Your task to perform on an android device: turn notification dots off Image 0: 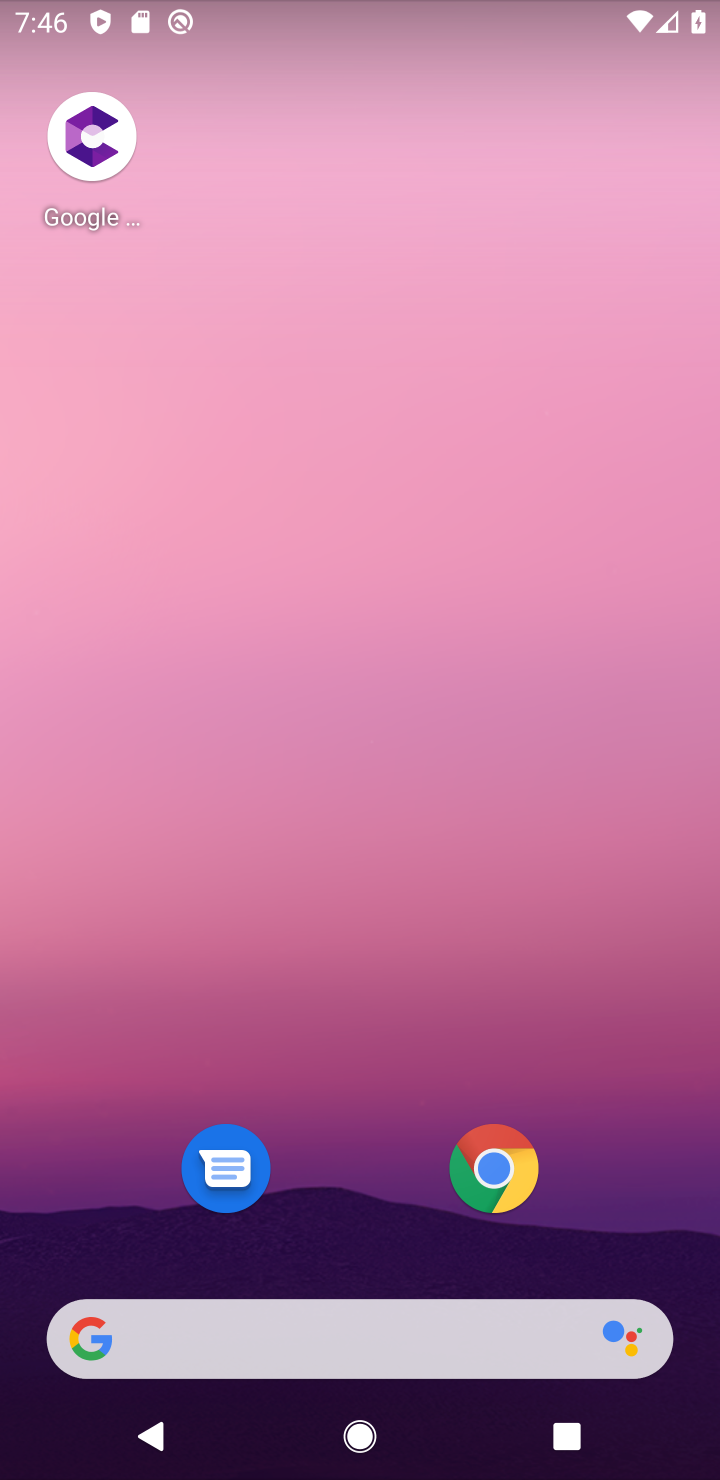
Step 0: drag from (624, 1254) to (680, 1)
Your task to perform on an android device: turn notification dots off Image 1: 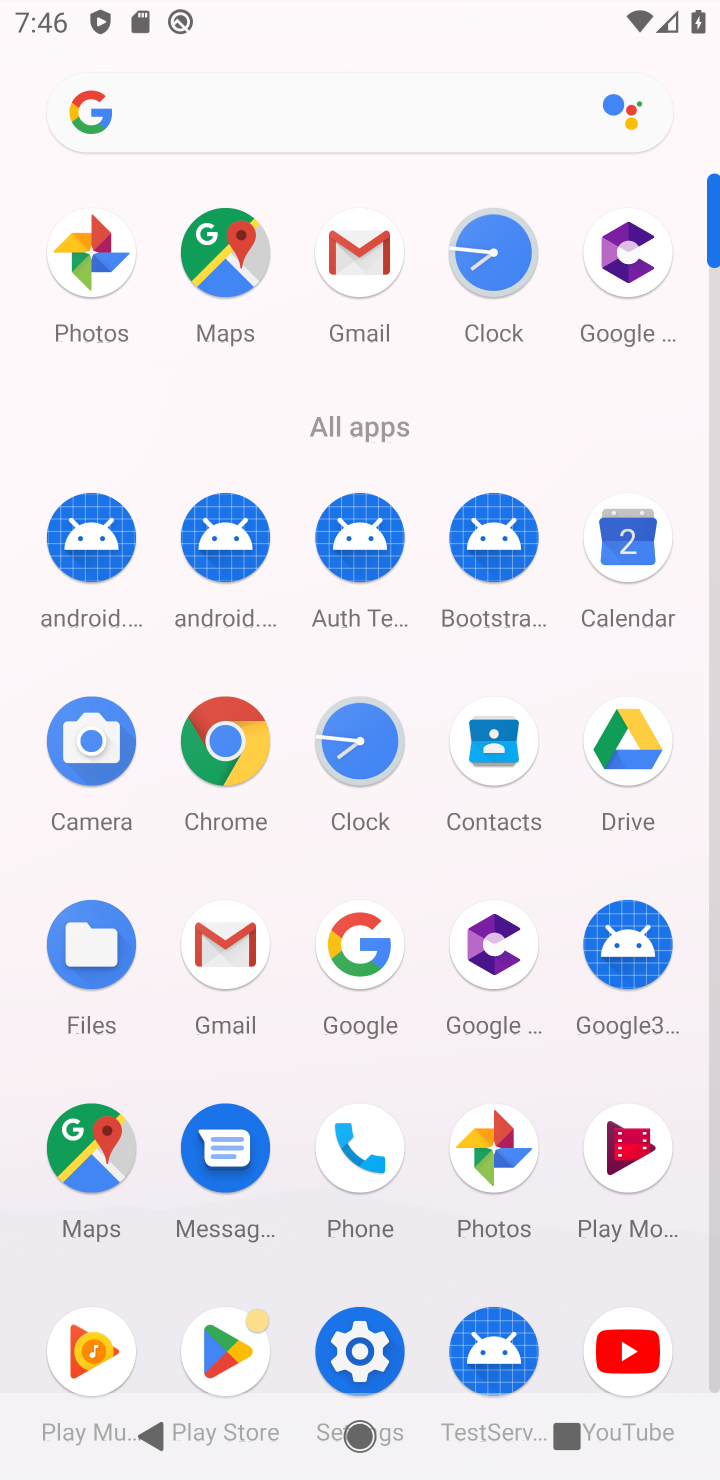
Step 1: click (332, 1355)
Your task to perform on an android device: turn notification dots off Image 2: 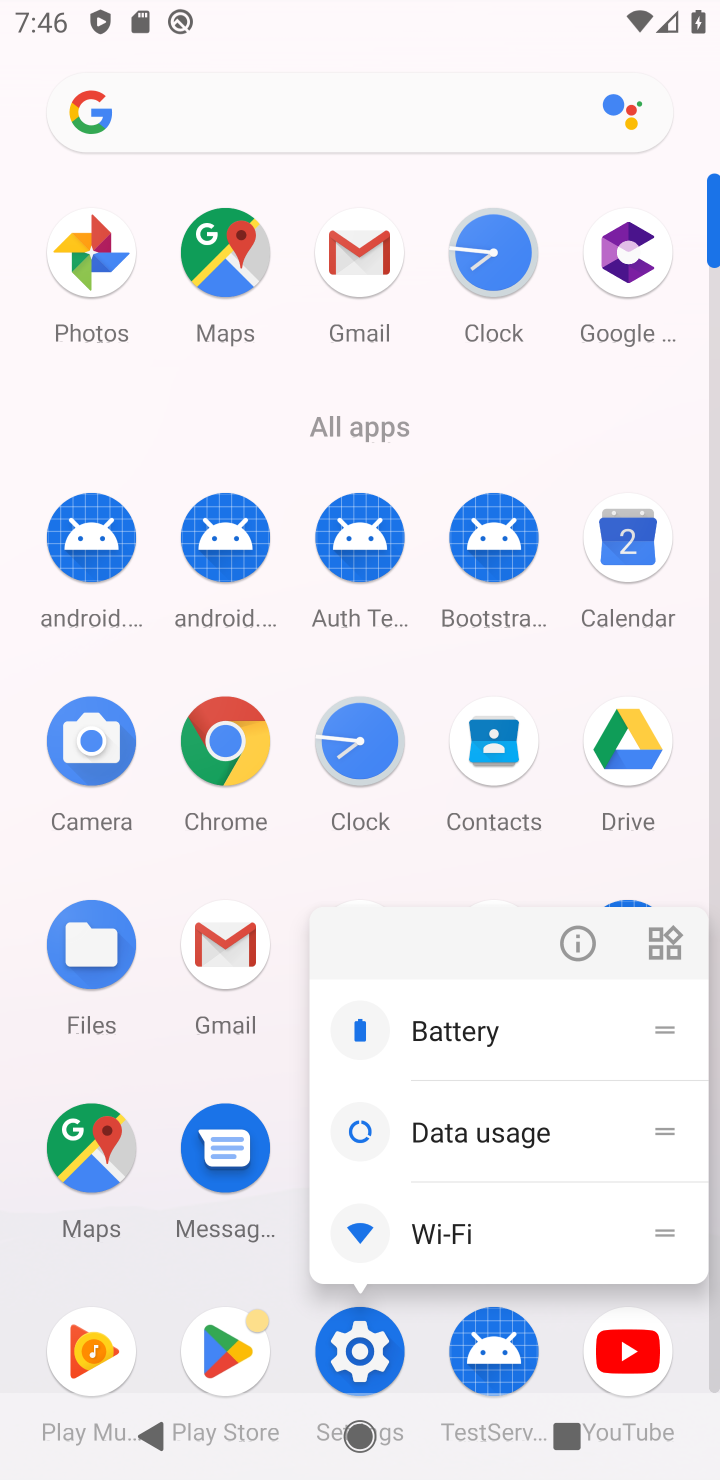
Step 2: click (355, 1335)
Your task to perform on an android device: turn notification dots off Image 3: 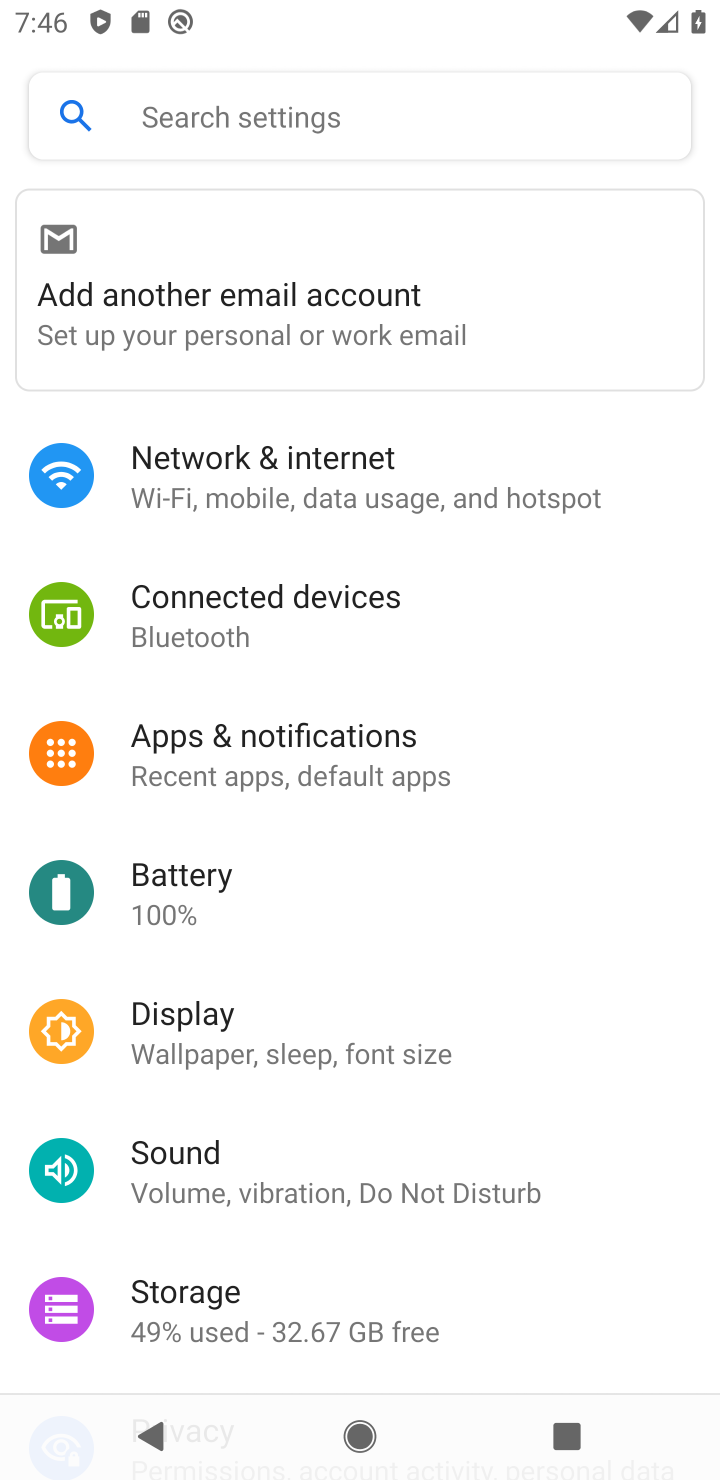
Step 3: click (258, 791)
Your task to perform on an android device: turn notification dots off Image 4: 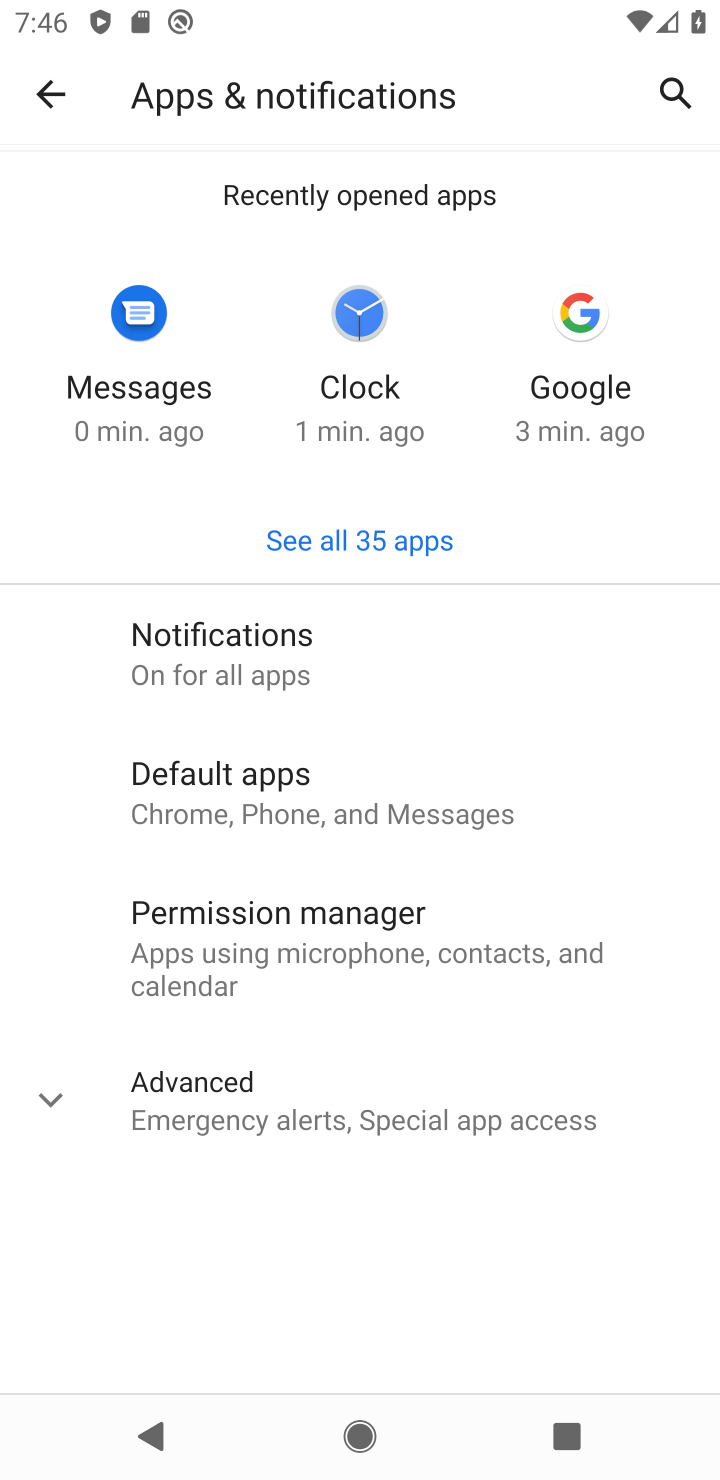
Step 4: click (193, 643)
Your task to perform on an android device: turn notification dots off Image 5: 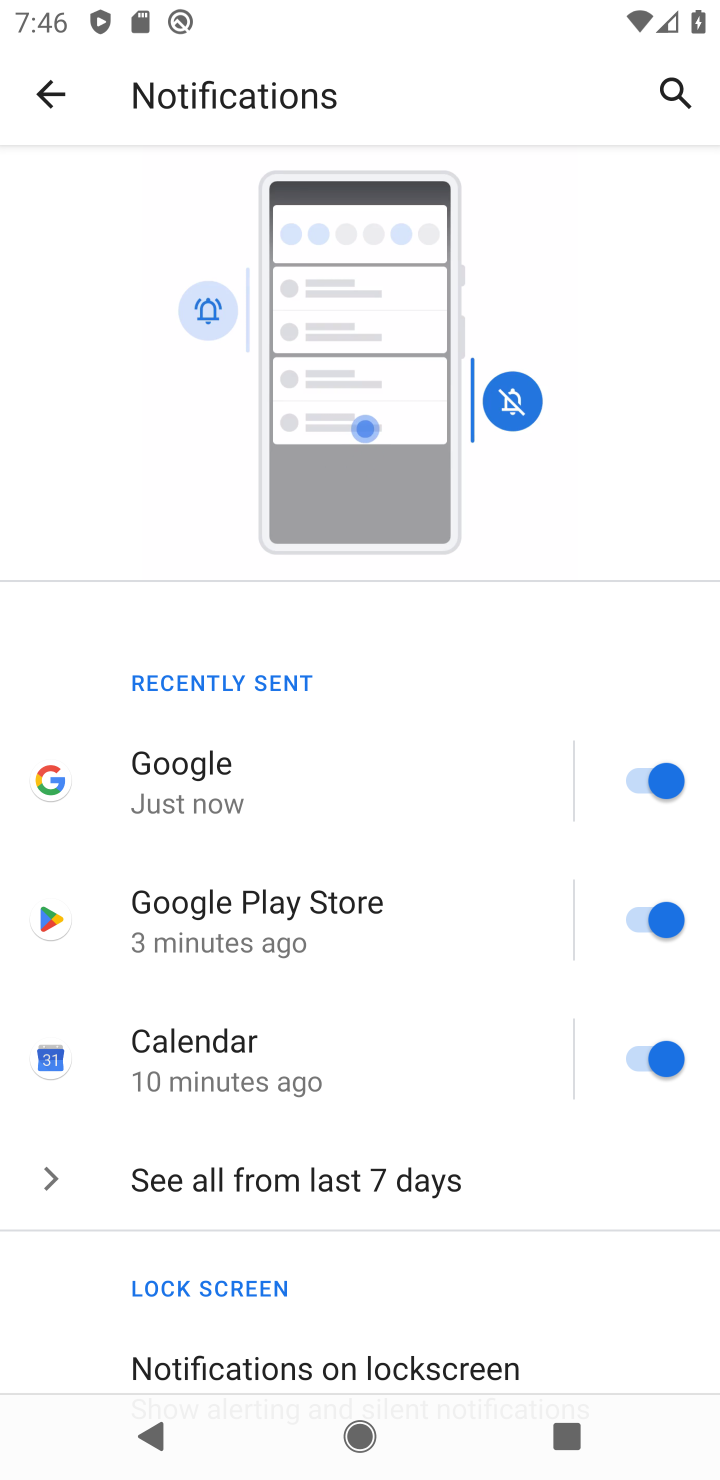
Step 5: drag from (336, 1122) to (632, 139)
Your task to perform on an android device: turn notification dots off Image 6: 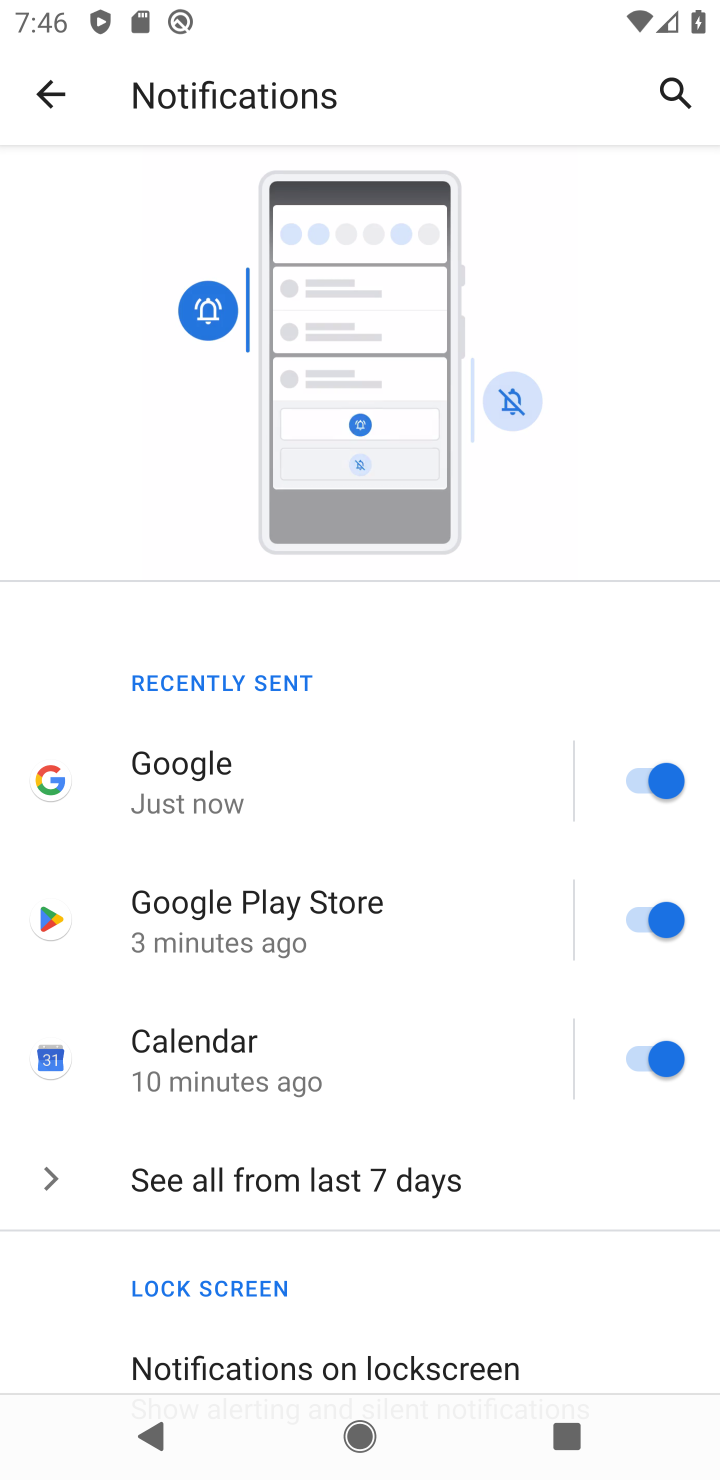
Step 6: drag from (372, 1323) to (402, 352)
Your task to perform on an android device: turn notification dots off Image 7: 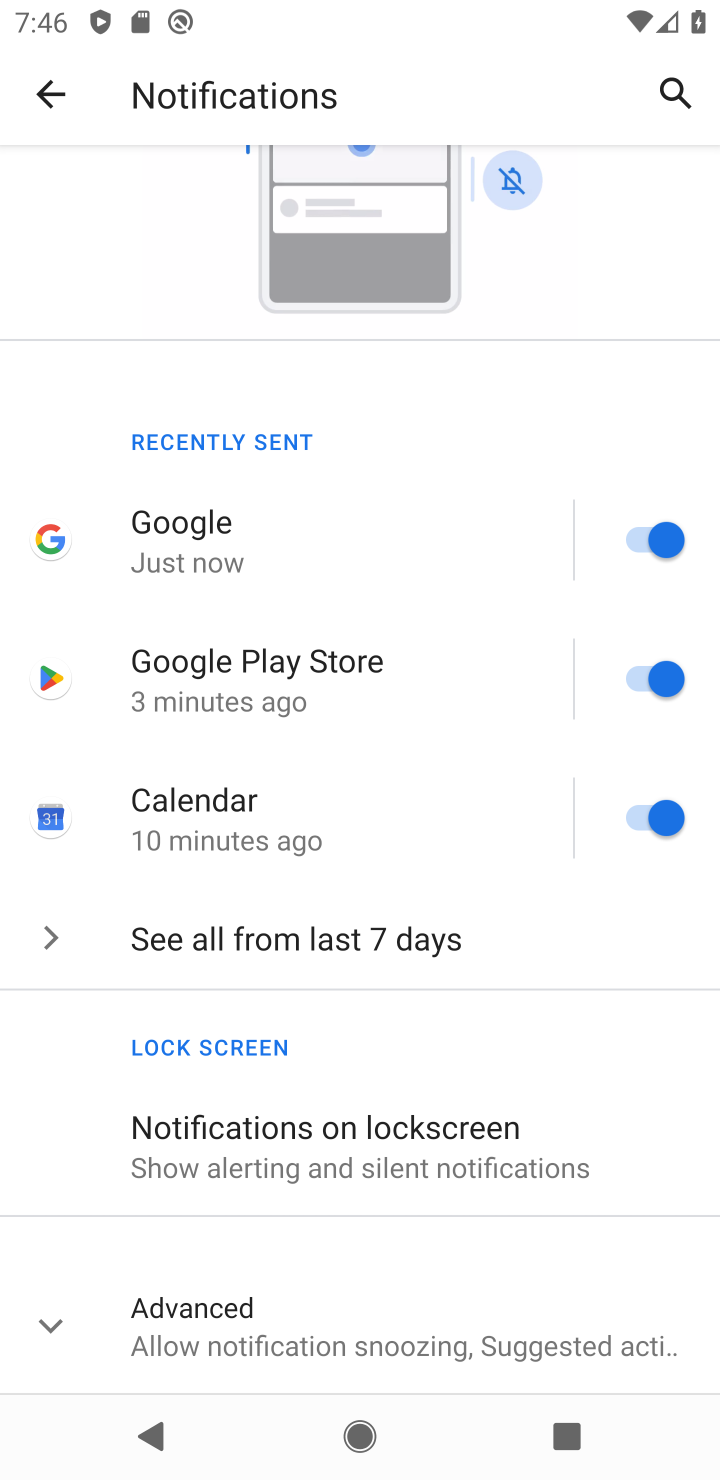
Step 7: click (181, 1339)
Your task to perform on an android device: turn notification dots off Image 8: 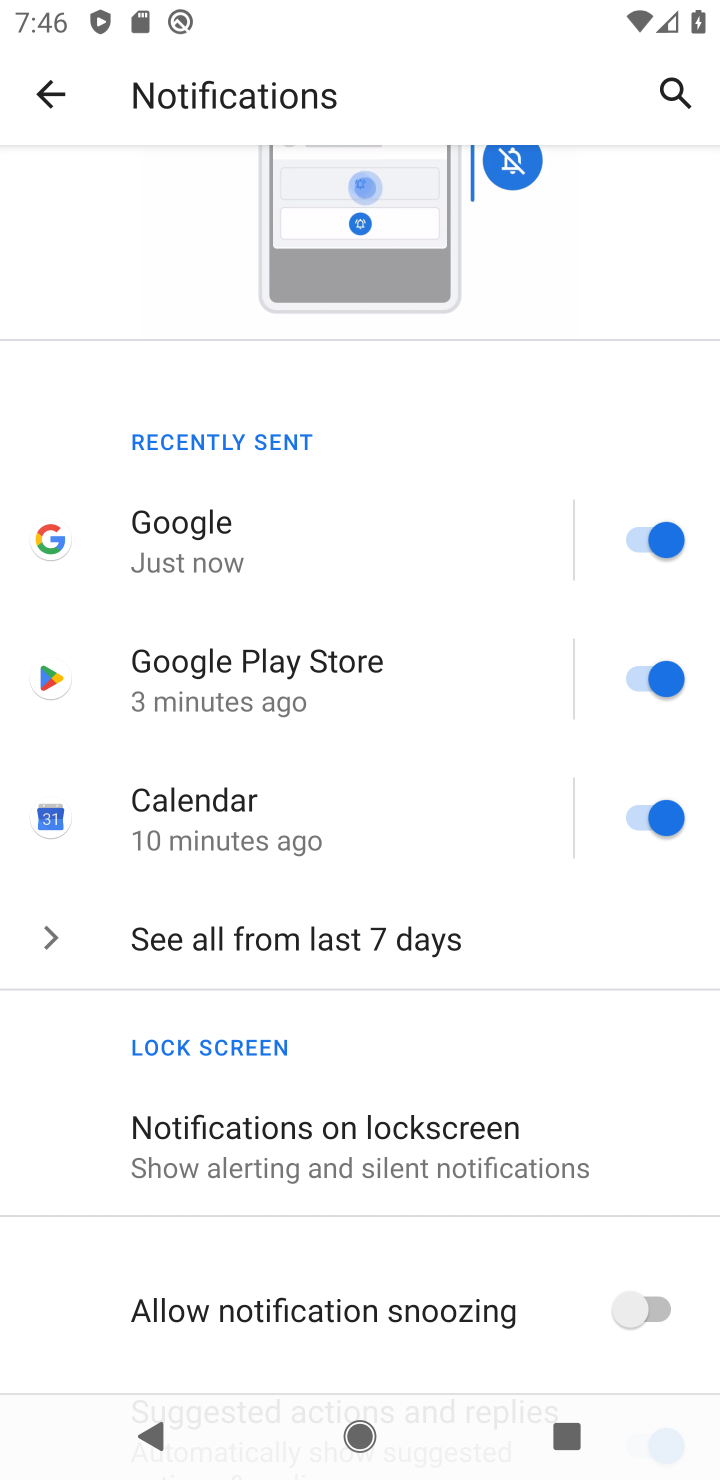
Step 8: drag from (181, 1337) to (461, 209)
Your task to perform on an android device: turn notification dots off Image 9: 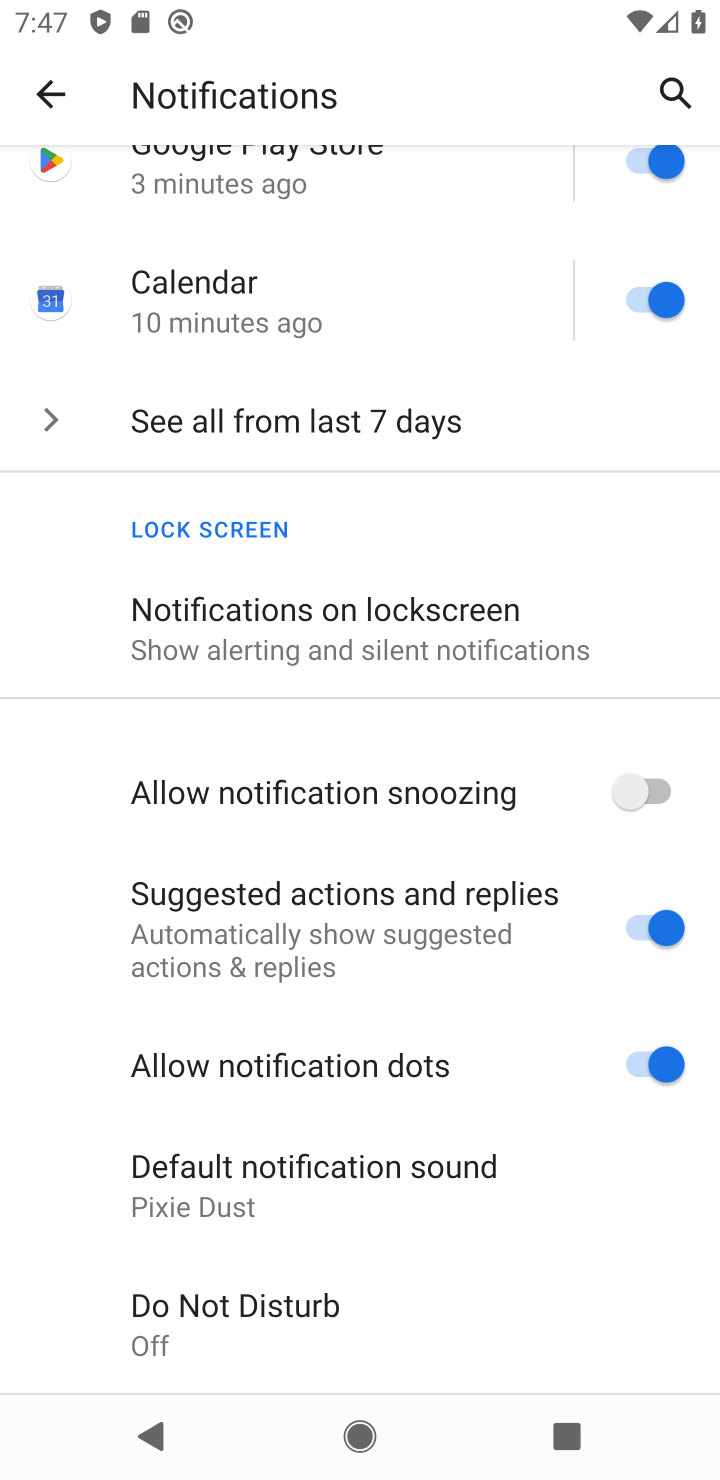
Step 9: click (657, 1056)
Your task to perform on an android device: turn notification dots off Image 10: 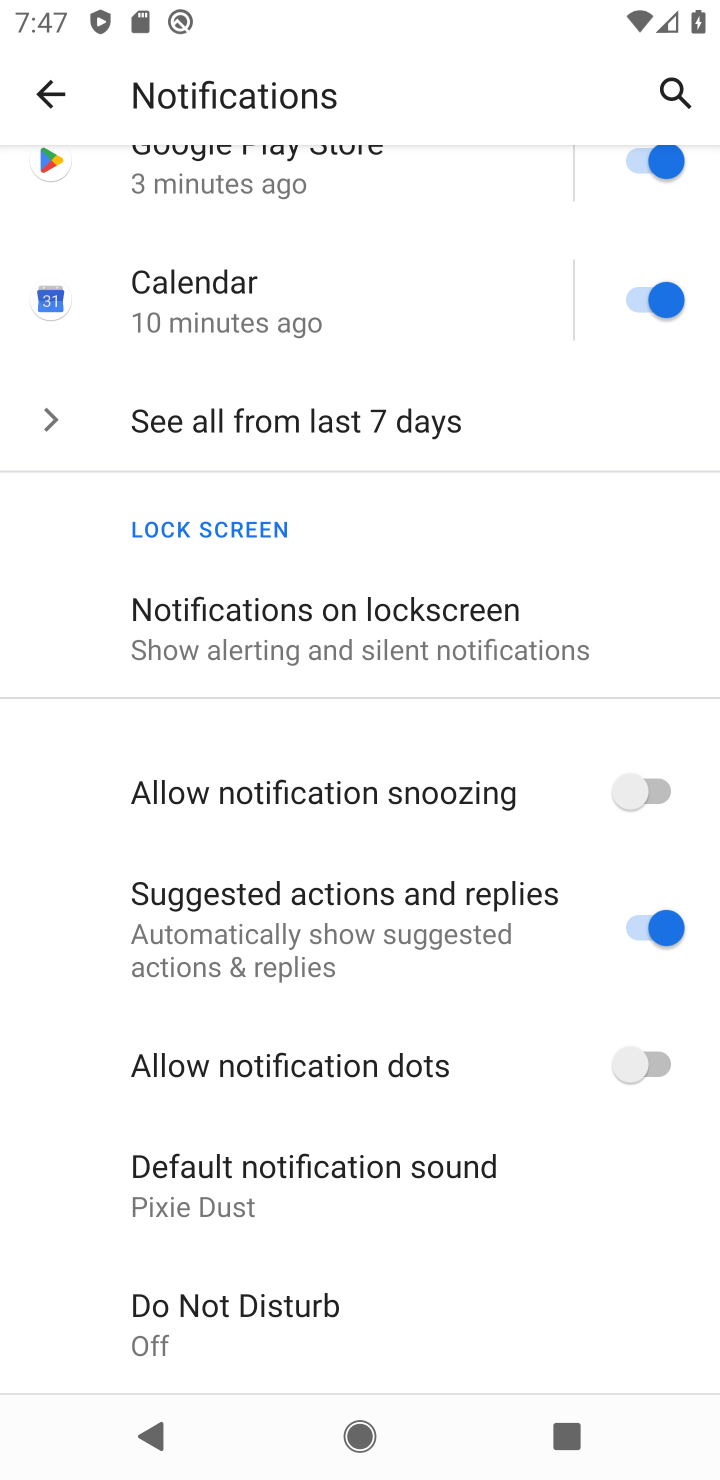
Step 10: task complete